Your task to perform on an android device: turn smart compose on in the gmail app Image 0: 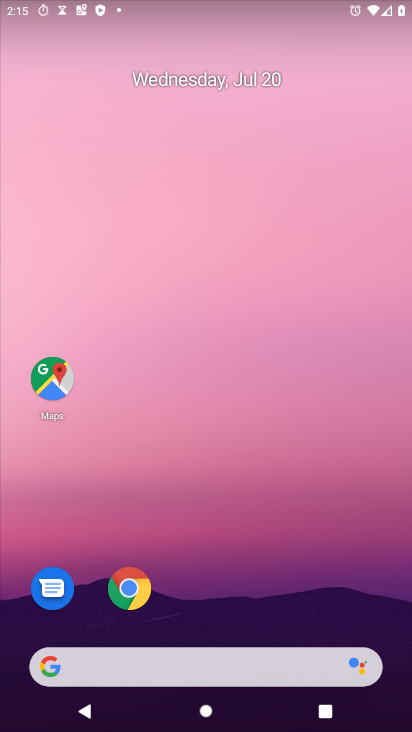
Step 0: drag from (306, 681) to (321, 112)
Your task to perform on an android device: turn smart compose on in the gmail app Image 1: 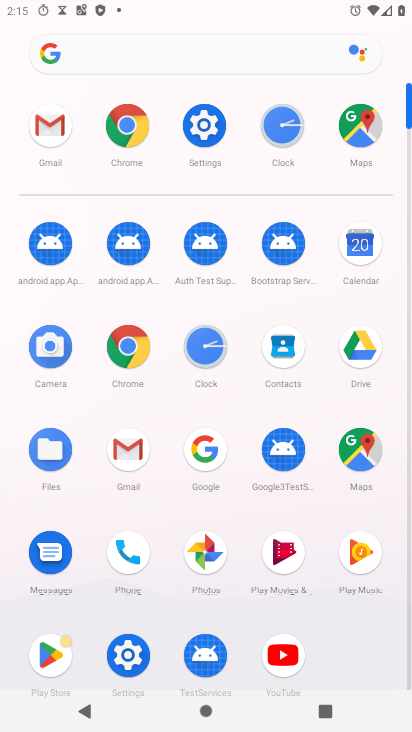
Step 1: click (134, 447)
Your task to perform on an android device: turn smart compose on in the gmail app Image 2: 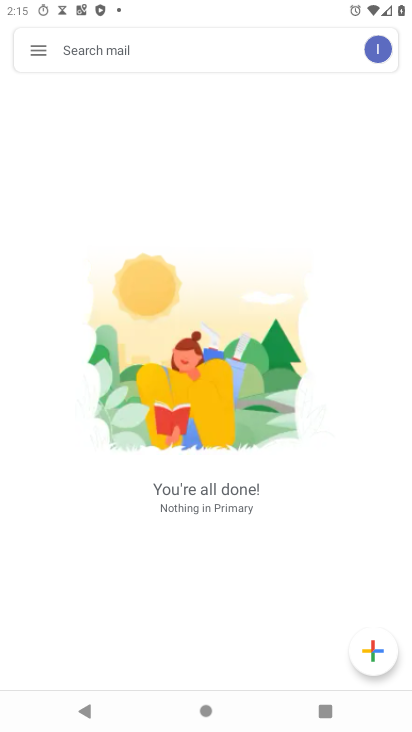
Step 2: click (42, 40)
Your task to perform on an android device: turn smart compose on in the gmail app Image 3: 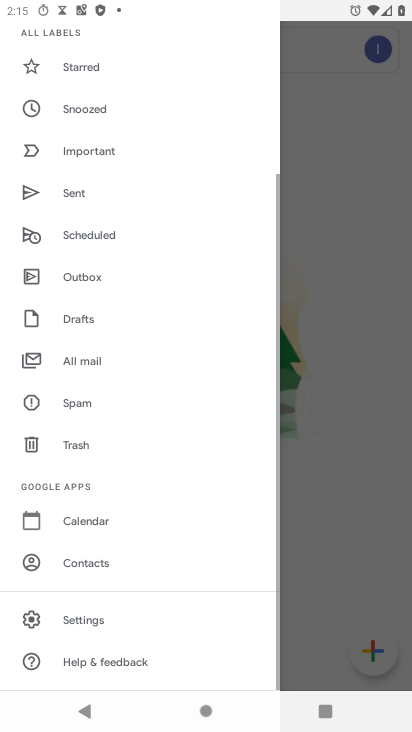
Step 3: click (126, 616)
Your task to perform on an android device: turn smart compose on in the gmail app Image 4: 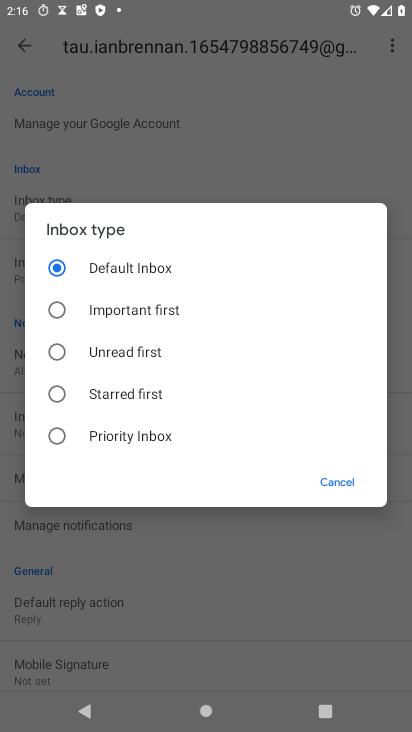
Step 4: click (321, 487)
Your task to perform on an android device: turn smart compose on in the gmail app Image 5: 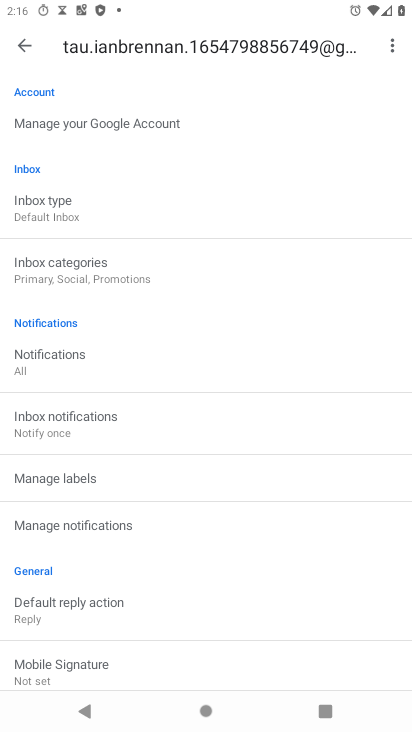
Step 5: task complete